Your task to perform on an android device: see creations saved in the google photos Image 0: 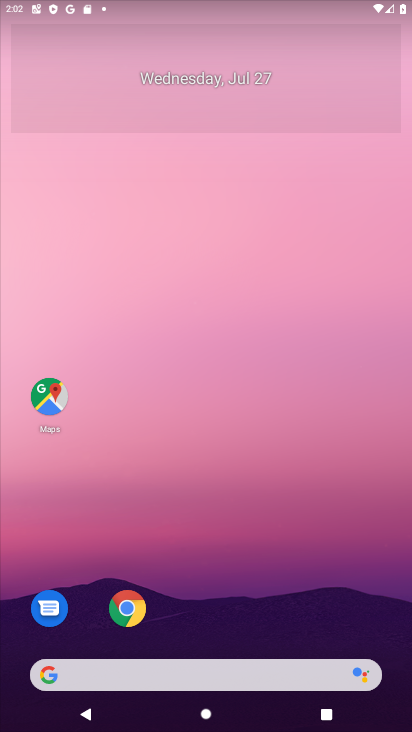
Step 0: drag from (186, 492) to (326, 199)
Your task to perform on an android device: see creations saved in the google photos Image 1: 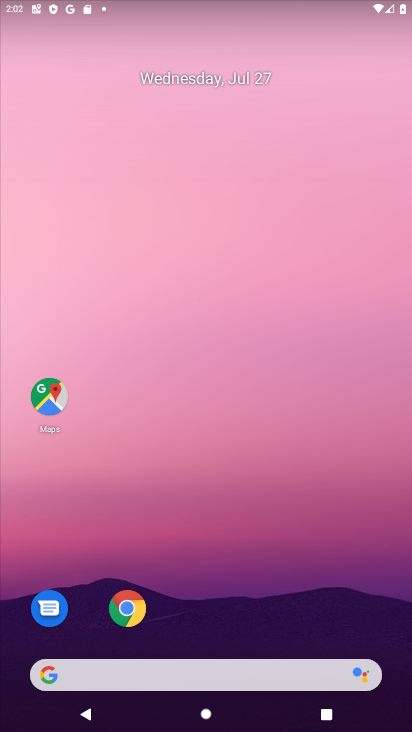
Step 1: drag from (29, 693) to (229, 96)
Your task to perform on an android device: see creations saved in the google photos Image 2: 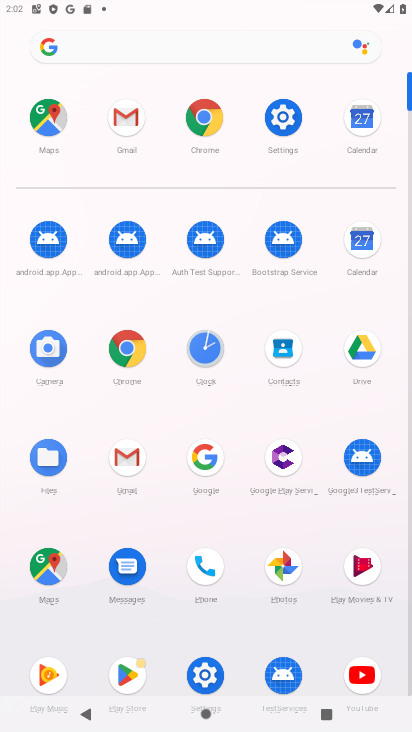
Step 2: click (274, 573)
Your task to perform on an android device: see creations saved in the google photos Image 3: 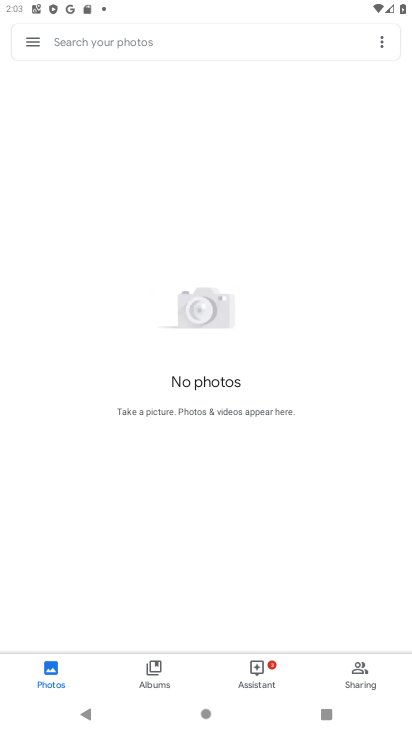
Step 3: click (382, 47)
Your task to perform on an android device: see creations saved in the google photos Image 4: 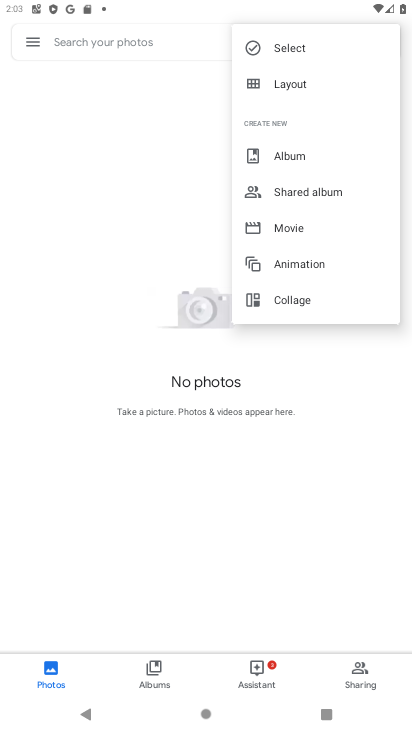
Step 4: click (383, 476)
Your task to perform on an android device: see creations saved in the google photos Image 5: 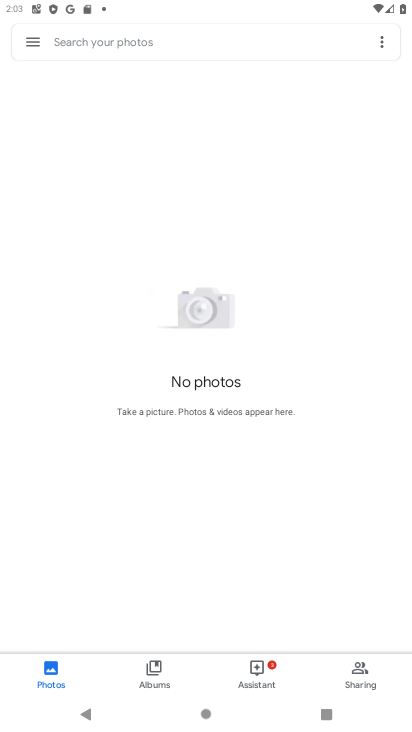
Step 5: task complete